Your task to perform on an android device: turn on sleep mode Image 0: 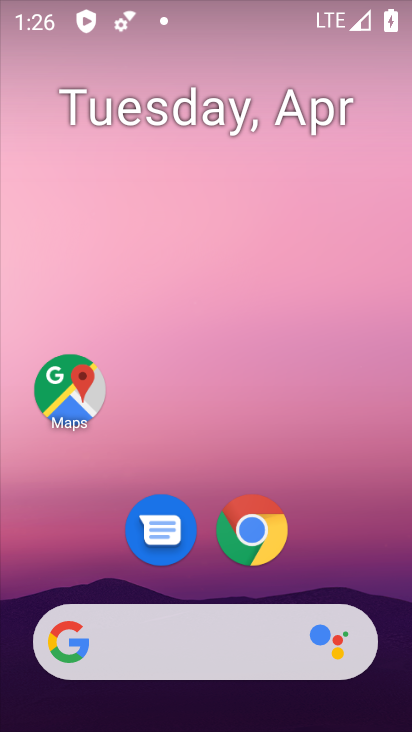
Step 0: drag from (212, 726) to (207, 40)
Your task to perform on an android device: turn on sleep mode Image 1: 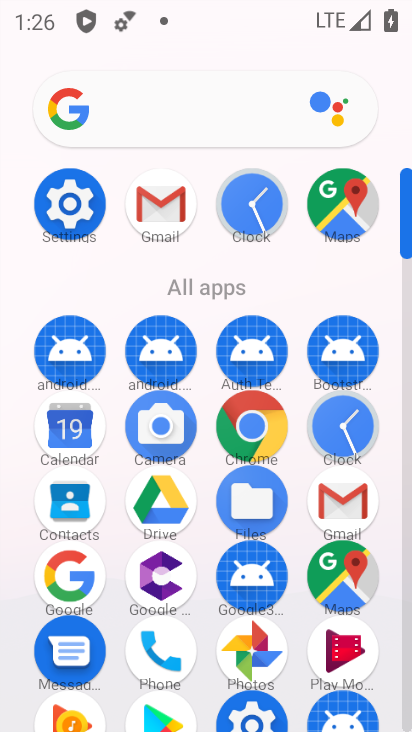
Step 1: click (59, 208)
Your task to perform on an android device: turn on sleep mode Image 2: 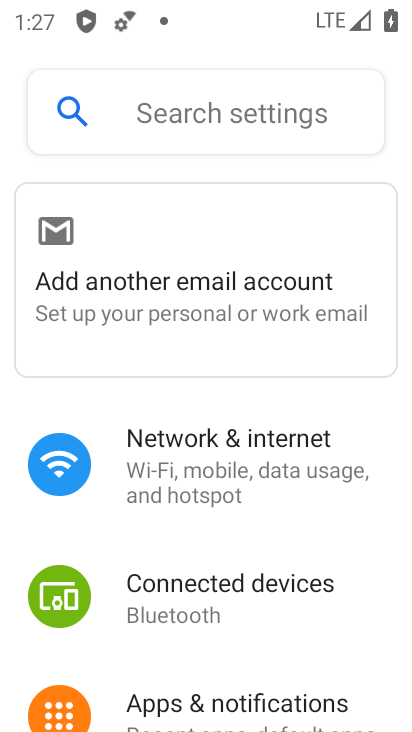
Step 2: drag from (227, 663) to (216, 159)
Your task to perform on an android device: turn on sleep mode Image 3: 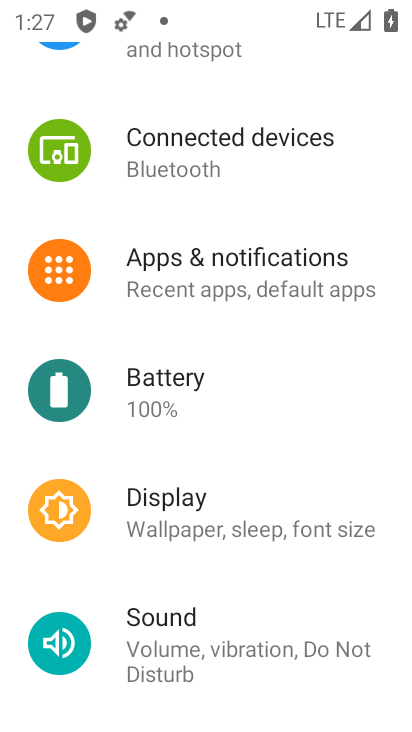
Step 3: drag from (236, 675) to (212, 153)
Your task to perform on an android device: turn on sleep mode Image 4: 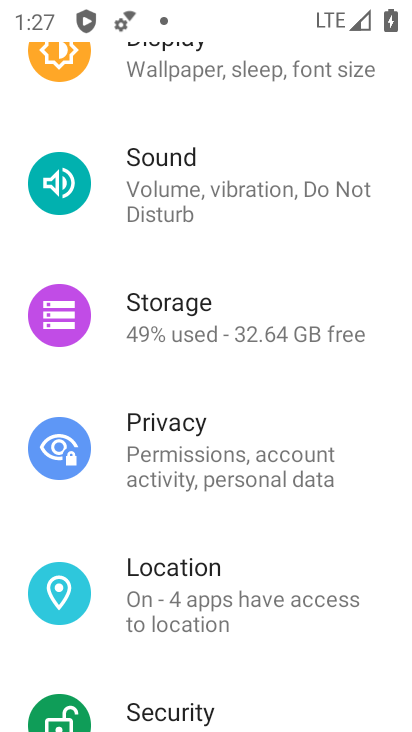
Step 4: drag from (238, 659) to (216, 107)
Your task to perform on an android device: turn on sleep mode Image 5: 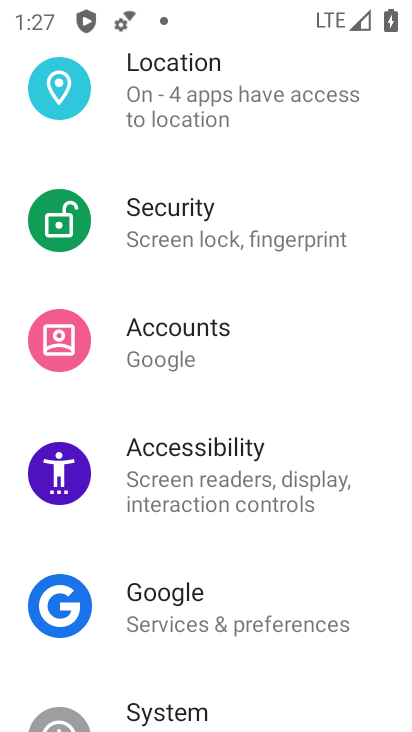
Step 5: drag from (238, 668) to (238, 117)
Your task to perform on an android device: turn on sleep mode Image 6: 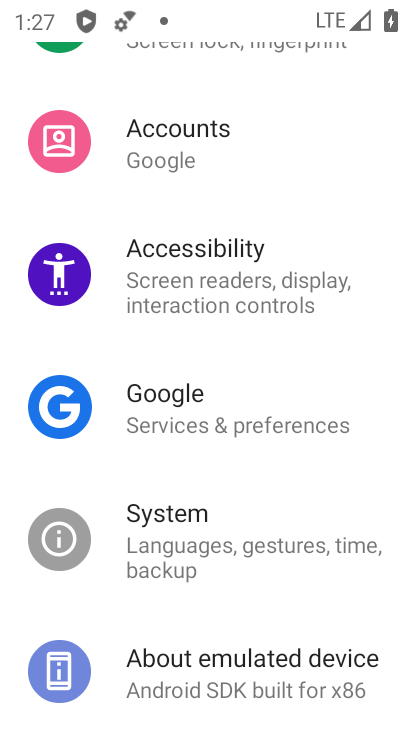
Step 6: drag from (262, 149) to (262, 598)
Your task to perform on an android device: turn on sleep mode Image 7: 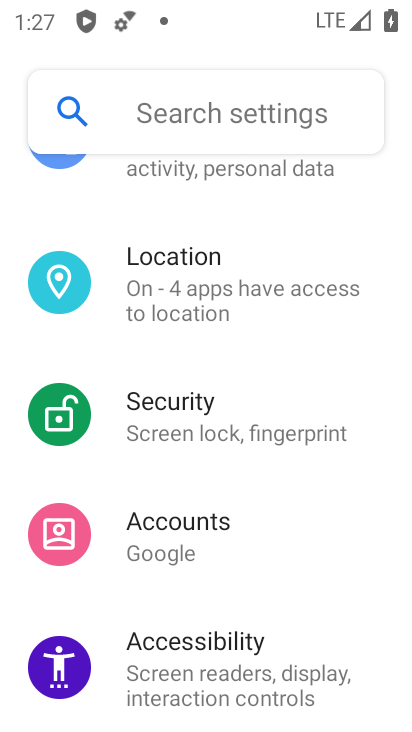
Step 7: drag from (269, 234) to (262, 640)
Your task to perform on an android device: turn on sleep mode Image 8: 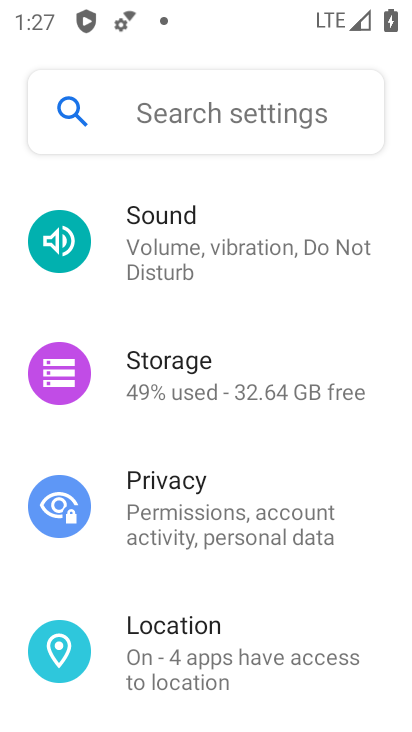
Step 8: drag from (264, 194) to (225, 622)
Your task to perform on an android device: turn on sleep mode Image 9: 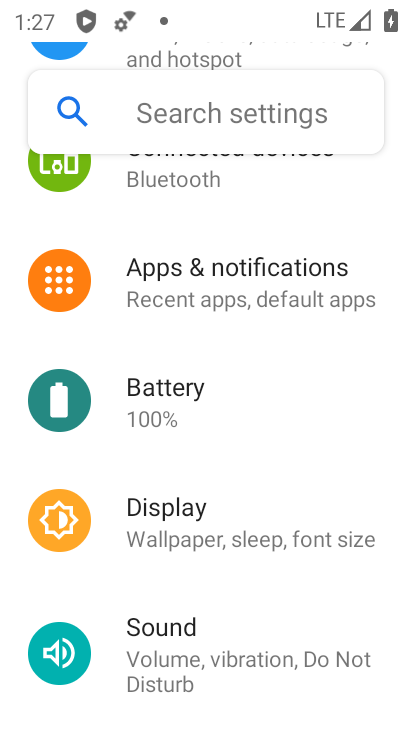
Step 9: click (228, 541)
Your task to perform on an android device: turn on sleep mode Image 10: 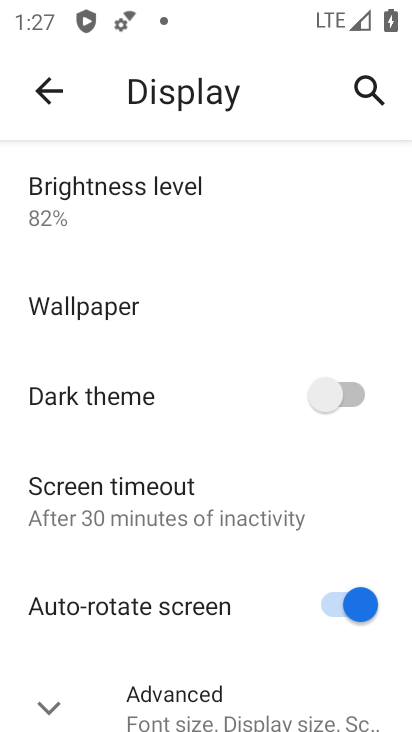
Step 10: task complete